Your task to perform on an android device: turn pop-ups on in chrome Image 0: 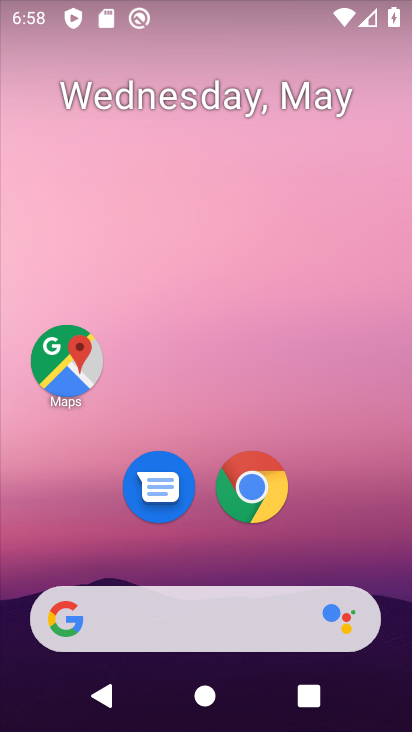
Step 0: drag from (388, 570) to (367, 42)
Your task to perform on an android device: turn pop-ups on in chrome Image 1: 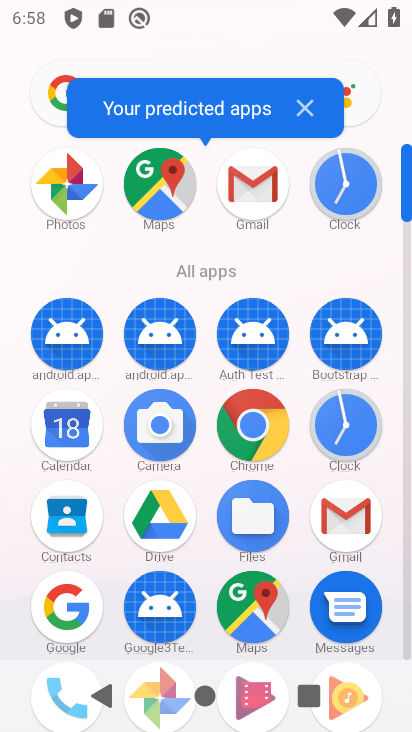
Step 1: click (274, 424)
Your task to perform on an android device: turn pop-ups on in chrome Image 2: 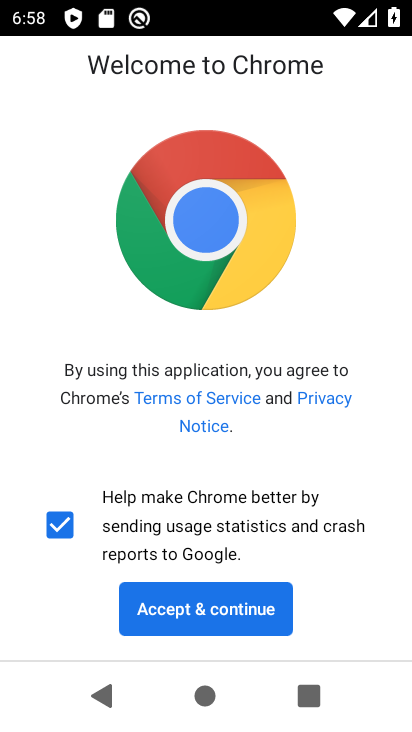
Step 2: click (212, 625)
Your task to perform on an android device: turn pop-ups on in chrome Image 3: 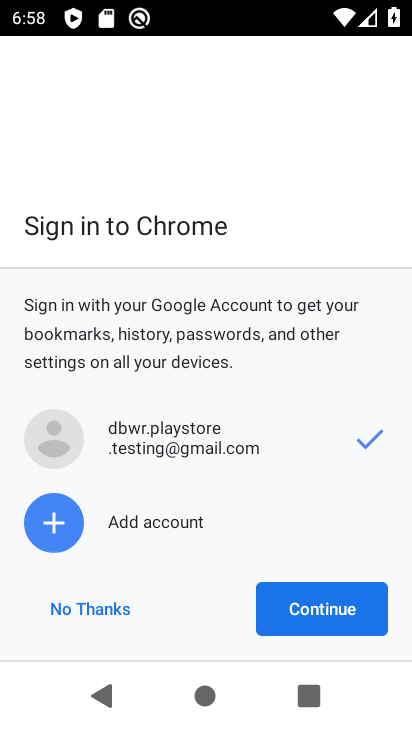
Step 3: click (110, 619)
Your task to perform on an android device: turn pop-ups on in chrome Image 4: 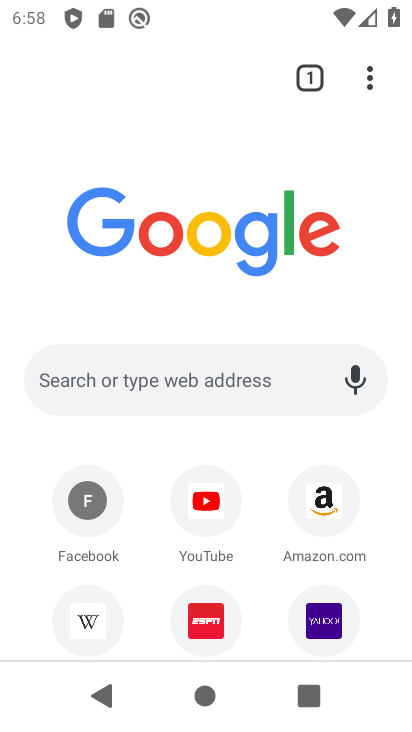
Step 4: drag from (384, 89) to (170, 540)
Your task to perform on an android device: turn pop-ups on in chrome Image 5: 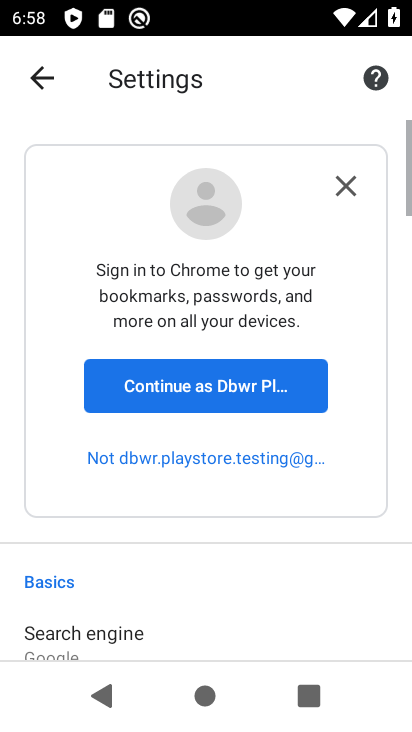
Step 5: drag from (195, 626) to (253, 190)
Your task to perform on an android device: turn pop-ups on in chrome Image 6: 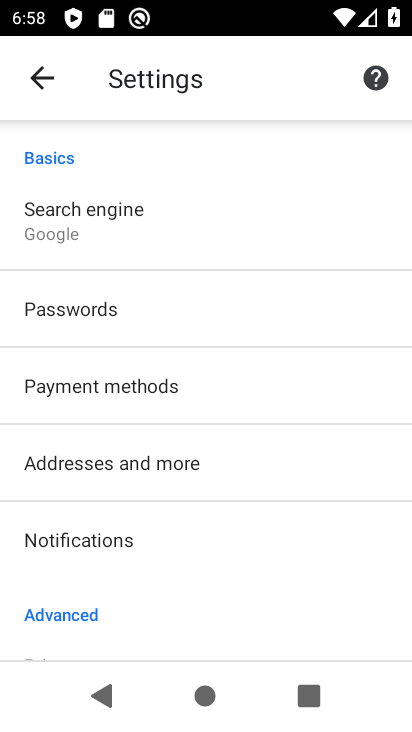
Step 6: drag from (153, 599) to (158, 245)
Your task to perform on an android device: turn pop-ups on in chrome Image 7: 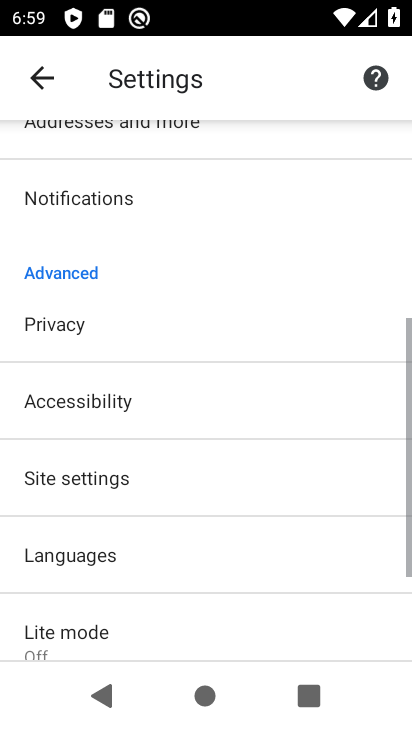
Step 7: click (95, 491)
Your task to perform on an android device: turn pop-ups on in chrome Image 8: 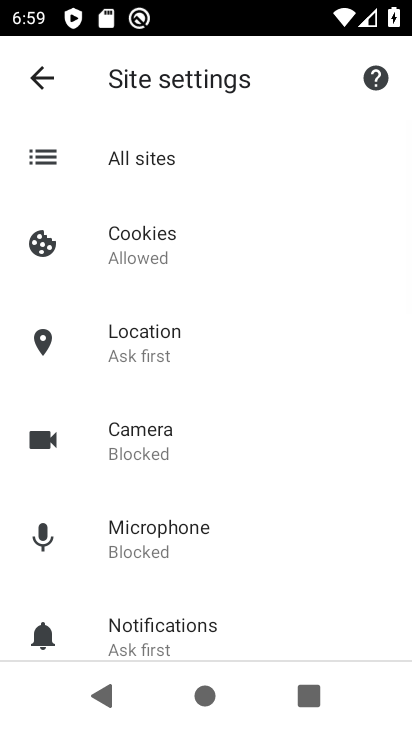
Step 8: drag from (129, 496) to (162, 209)
Your task to perform on an android device: turn pop-ups on in chrome Image 9: 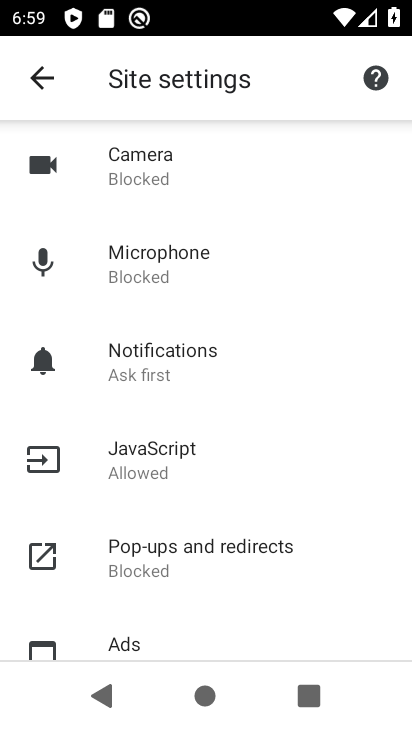
Step 9: click (155, 542)
Your task to perform on an android device: turn pop-ups on in chrome Image 10: 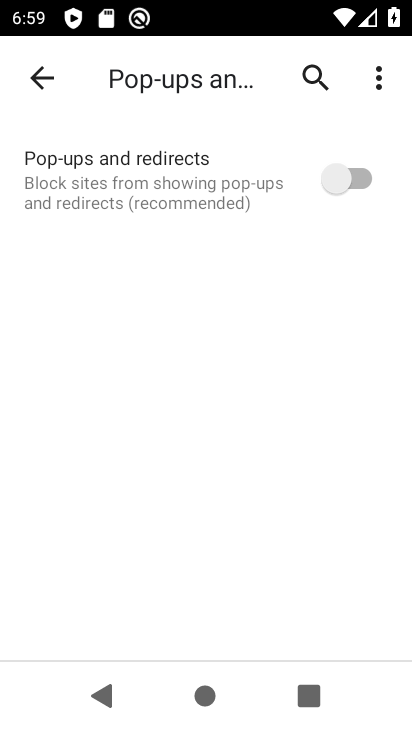
Step 10: click (358, 195)
Your task to perform on an android device: turn pop-ups on in chrome Image 11: 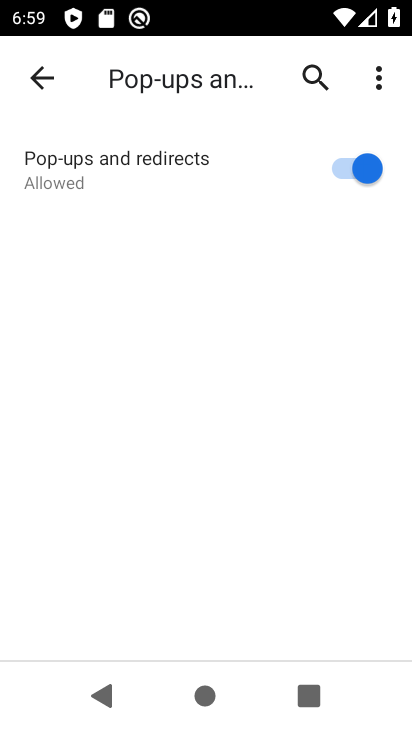
Step 11: task complete